Your task to perform on an android device: turn off sleep mode Image 0: 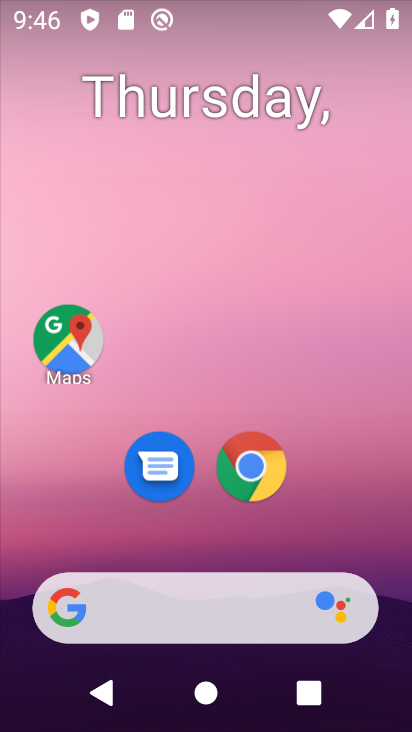
Step 0: drag from (284, 535) to (326, 87)
Your task to perform on an android device: turn off sleep mode Image 1: 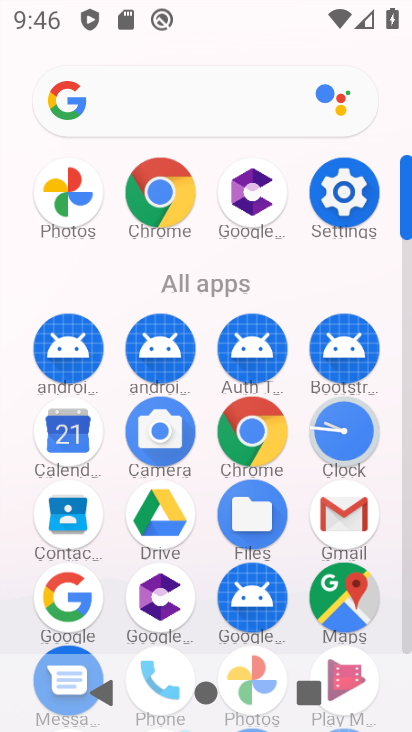
Step 1: click (349, 194)
Your task to perform on an android device: turn off sleep mode Image 2: 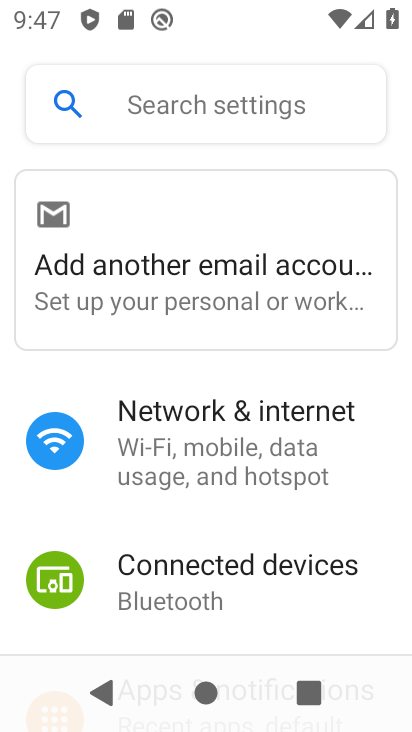
Step 2: drag from (308, 514) to (270, 37)
Your task to perform on an android device: turn off sleep mode Image 3: 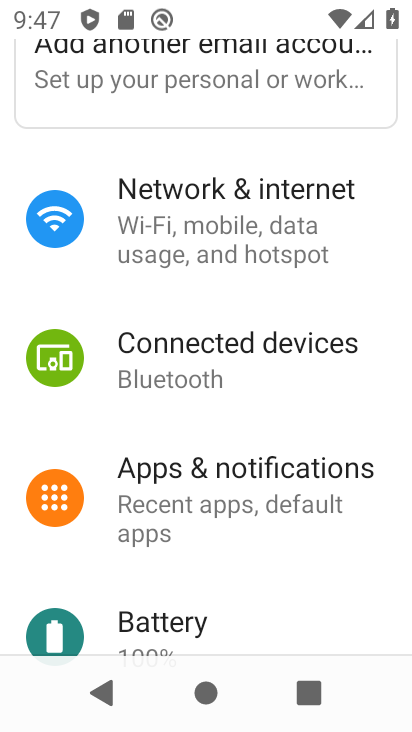
Step 3: drag from (253, 582) to (288, 110)
Your task to perform on an android device: turn off sleep mode Image 4: 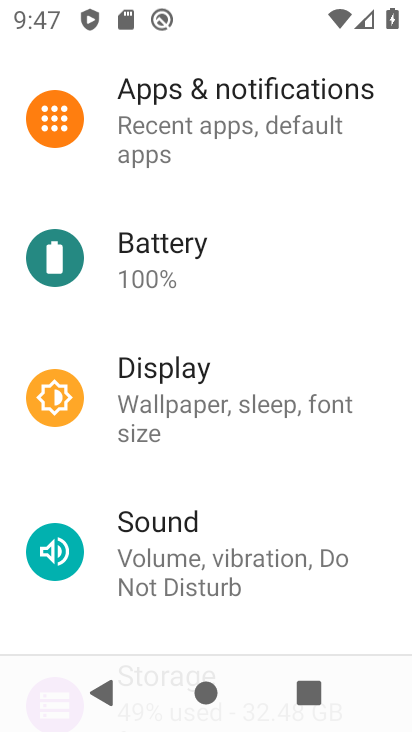
Step 4: click (321, 402)
Your task to perform on an android device: turn off sleep mode Image 5: 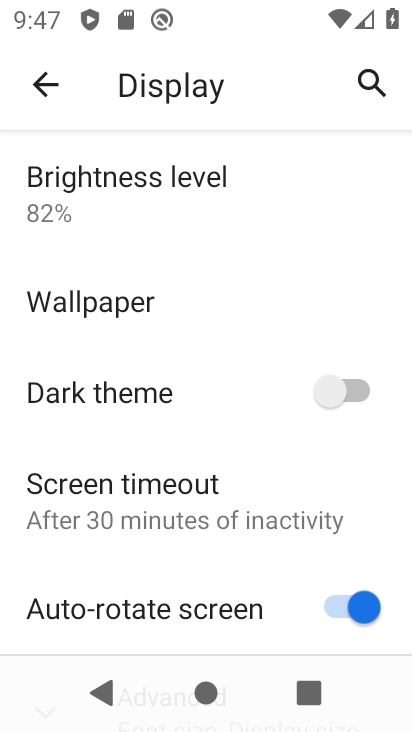
Step 5: task complete